Your task to perform on an android device: Install the Yelp app Image 0: 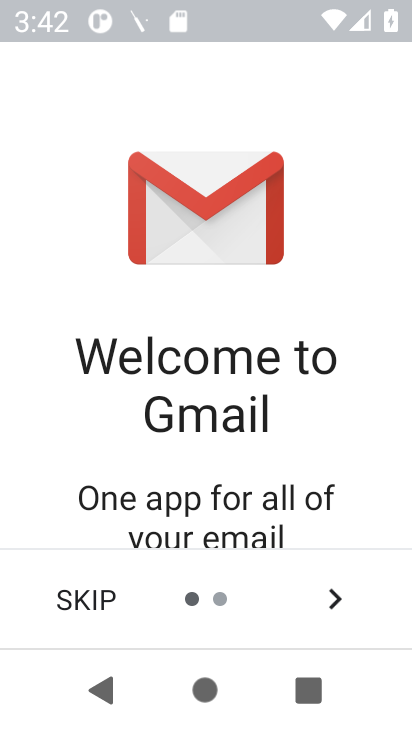
Step 0: press home button
Your task to perform on an android device: Install the Yelp app Image 1: 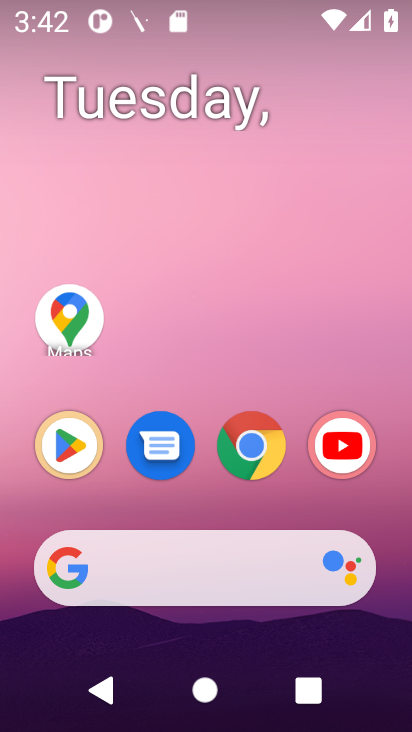
Step 1: drag from (236, 457) to (223, 162)
Your task to perform on an android device: Install the Yelp app Image 2: 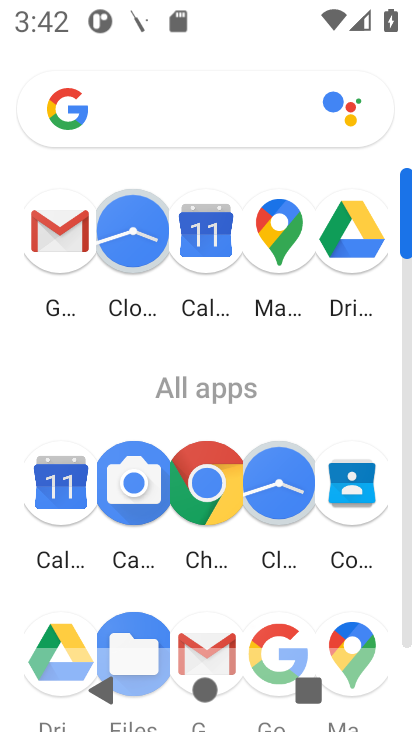
Step 2: drag from (263, 406) to (263, 205)
Your task to perform on an android device: Install the Yelp app Image 3: 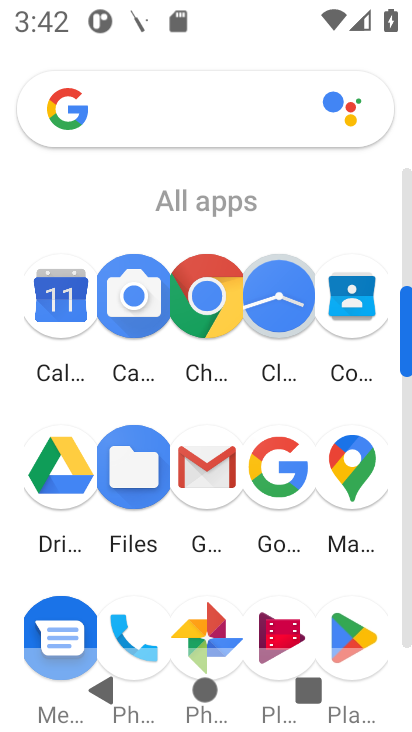
Step 3: click (345, 631)
Your task to perform on an android device: Install the Yelp app Image 4: 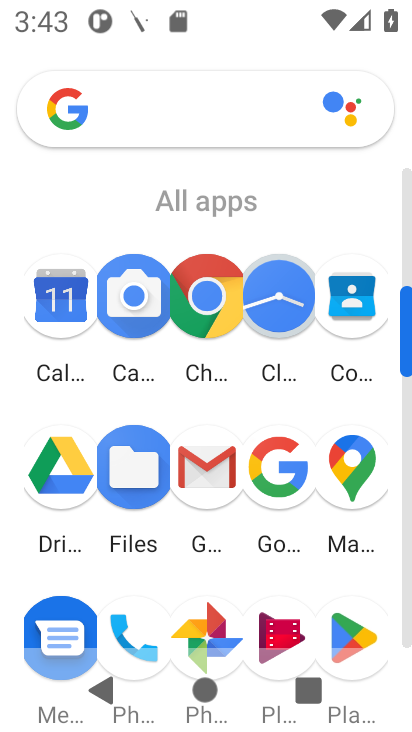
Step 4: click (349, 624)
Your task to perform on an android device: Install the Yelp app Image 5: 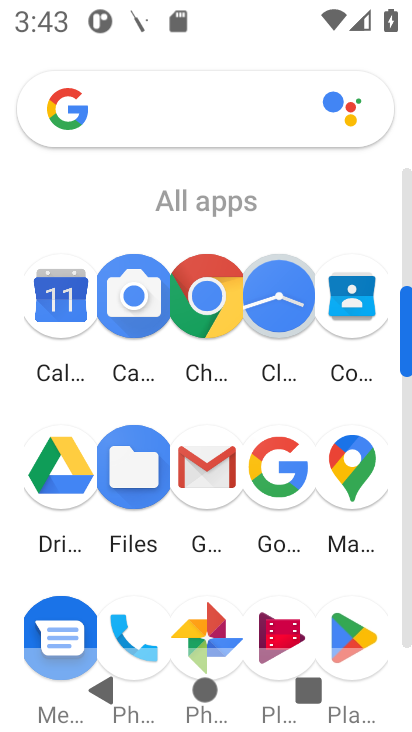
Step 5: task complete